Your task to perform on an android device: Open eBay Image 0: 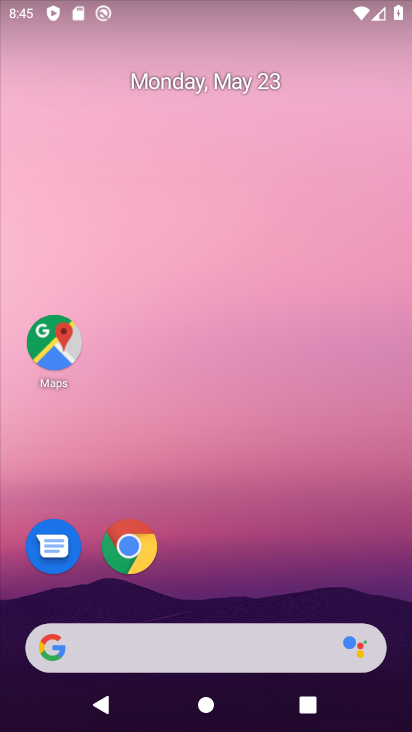
Step 0: drag from (272, 450) to (245, 84)
Your task to perform on an android device: Open eBay Image 1: 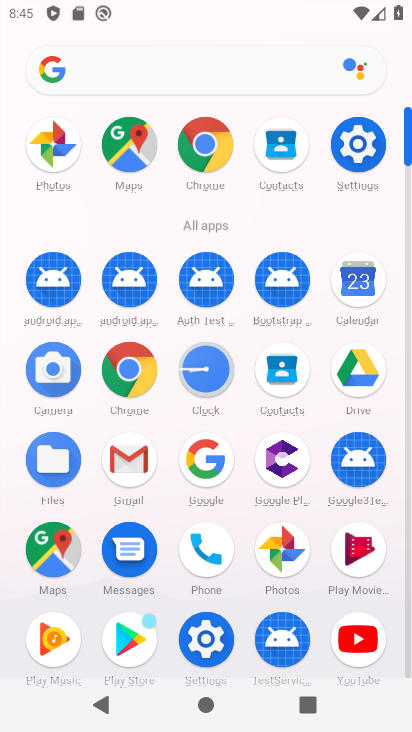
Step 1: click (132, 373)
Your task to perform on an android device: Open eBay Image 2: 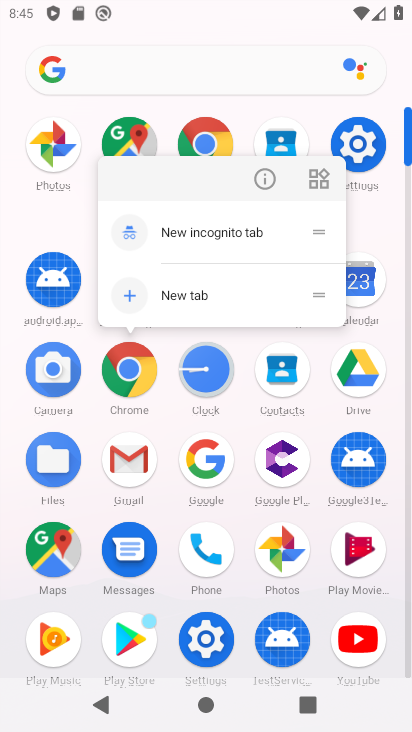
Step 2: click (132, 373)
Your task to perform on an android device: Open eBay Image 3: 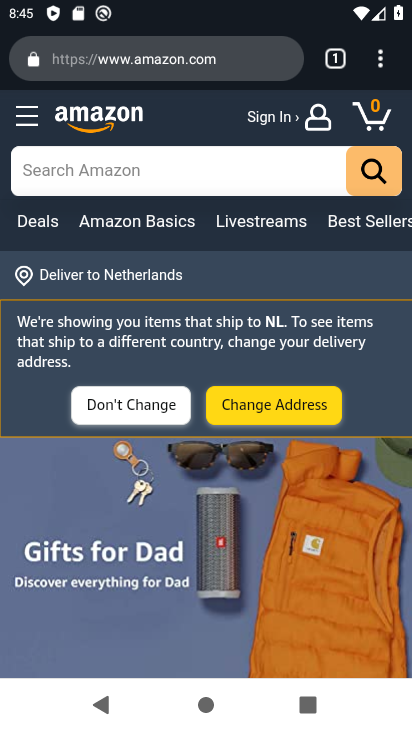
Step 3: click (176, 69)
Your task to perform on an android device: Open eBay Image 4: 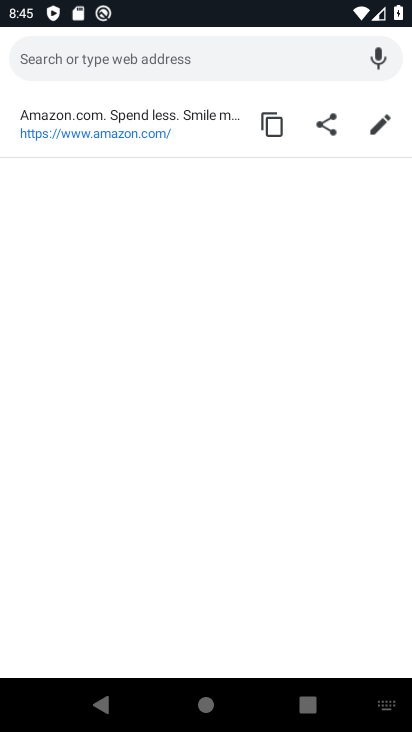
Step 4: type "ebay"
Your task to perform on an android device: Open eBay Image 5: 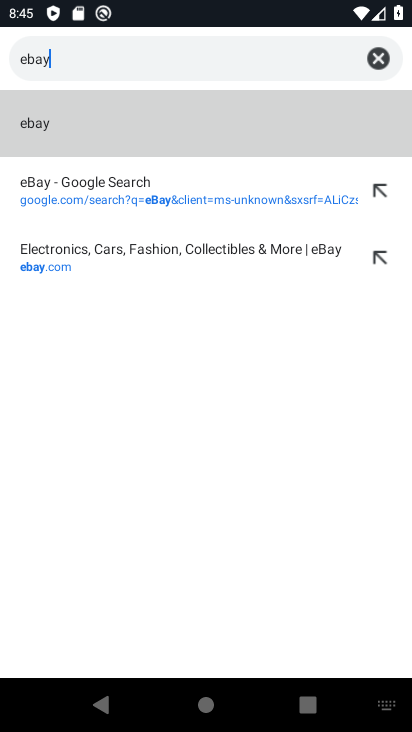
Step 5: click (36, 261)
Your task to perform on an android device: Open eBay Image 6: 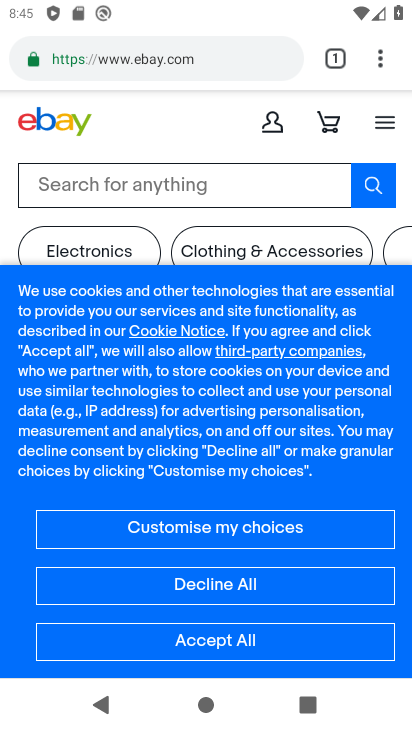
Step 6: task complete